Your task to perform on an android device: Open Chrome and go to the settings page Image 0: 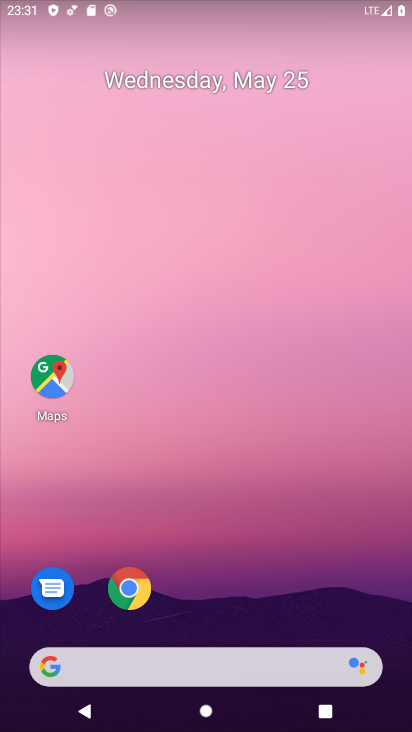
Step 0: click (124, 587)
Your task to perform on an android device: Open Chrome and go to the settings page Image 1: 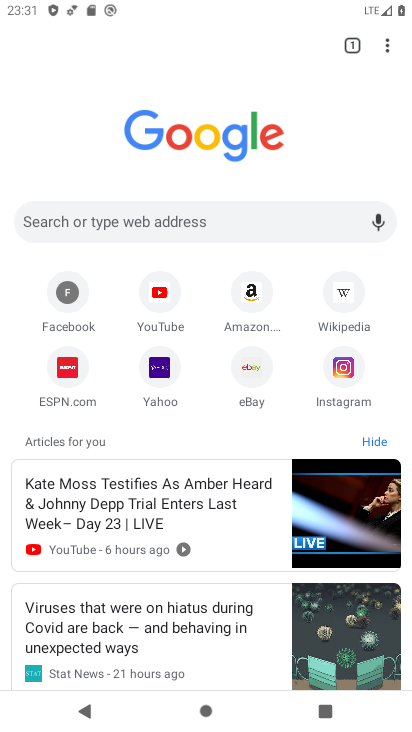
Step 1: click (381, 39)
Your task to perform on an android device: Open Chrome and go to the settings page Image 2: 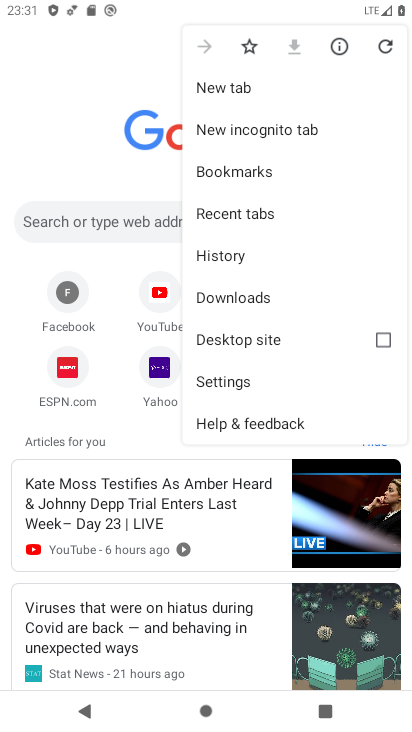
Step 2: click (231, 377)
Your task to perform on an android device: Open Chrome and go to the settings page Image 3: 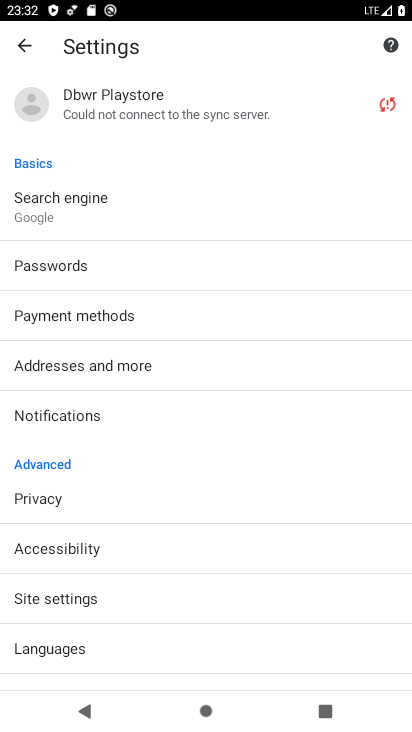
Step 3: task complete